Your task to perform on an android device: View the shopping cart on target. Add "apple airpods" to the cart on target Image 0: 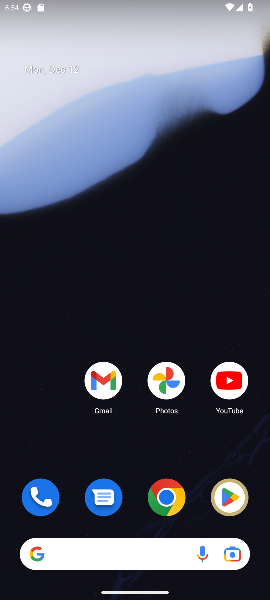
Step 0: press home button
Your task to perform on an android device: View the shopping cart on target. Add "apple airpods" to the cart on target Image 1: 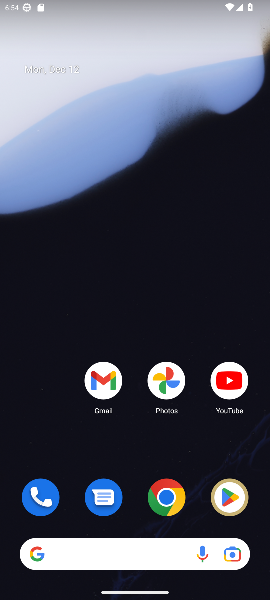
Step 1: drag from (69, 438) to (40, 83)
Your task to perform on an android device: View the shopping cart on target. Add "apple airpods" to the cart on target Image 2: 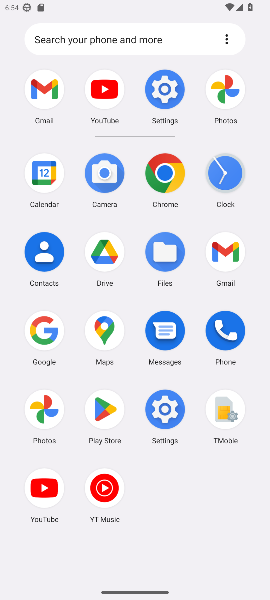
Step 2: click (49, 332)
Your task to perform on an android device: View the shopping cart on target. Add "apple airpods" to the cart on target Image 3: 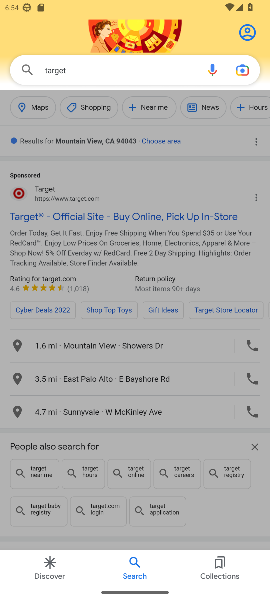
Step 3: click (121, 66)
Your task to perform on an android device: View the shopping cart on target. Add "apple airpods" to the cart on target Image 4: 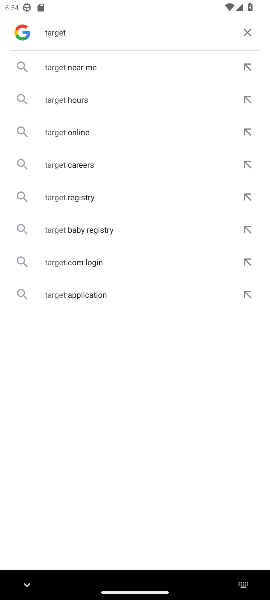
Step 4: click (240, 26)
Your task to perform on an android device: View the shopping cart on target. Add "apple airpods" to the cart on target Image 5: 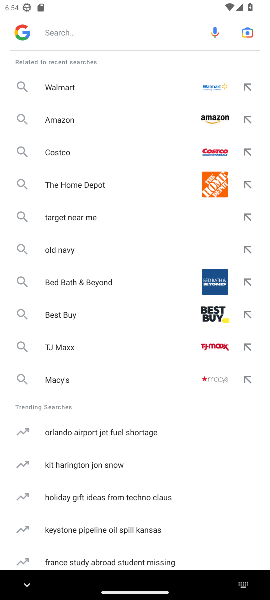
Step 5: type "target"
Your task to perform on an android device: View the shopping cart on target. Add "apple airpods" to the cart on target Image 6: 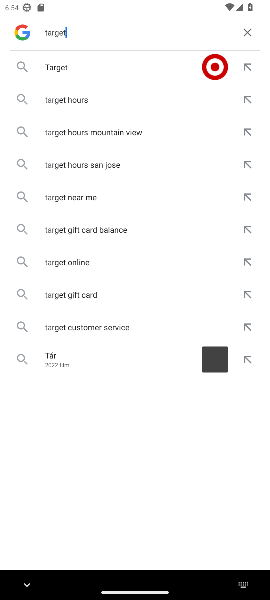
Step 6: press enter
Your task to perform on an android device: View the shopping cart on target. Add "apple airpods" to the cart on target Image 7: 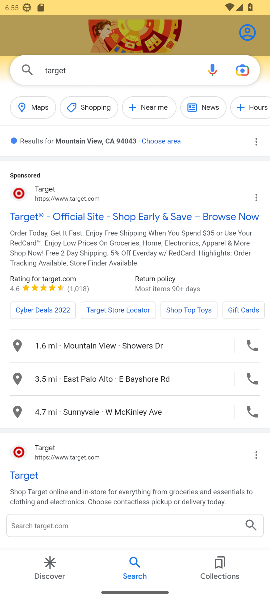
Step 7: click (81, 213)
Your task to perform on an android device: View the shopping cart on target. Add "apple airpods" to the cart on target Image 8: 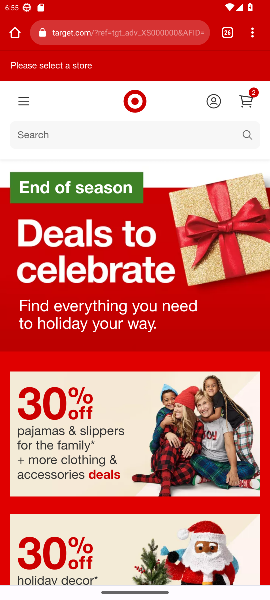
Step 8: click (244, 90)
Your task to perform on an android device: View the shopping cart on target. Add "apple airpods" to the cart on target Image 9: 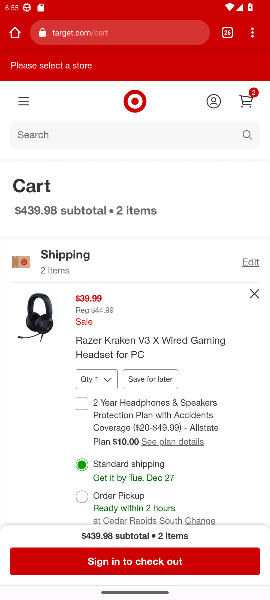
Step 9: drag from (137, 479) to (125, 259)
Your task to perform on an android device: View the shopping cart on target. Add "apple airpods" to the cart on target Image 10: 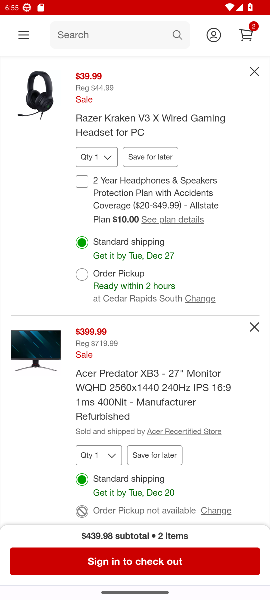
Step 10: click (254, 69)
Your task to perform on an android device: View the shopping cart on target. Add "apple airpods" to the cart on target Image 11: 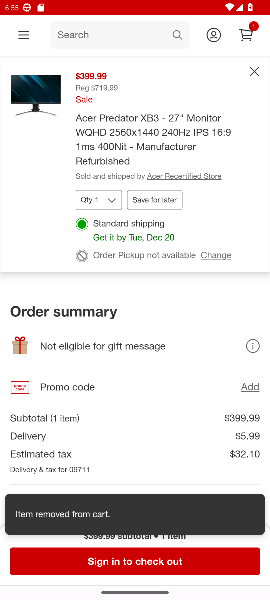
Step 11: click (254, 70)
Your task to perform on an android device: View the shopping cart on target. Add "apple airpods" to the cart on target Image 12: 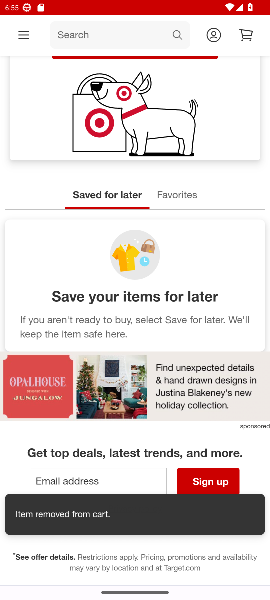
Step 12: click (176, 32)
Your task to perform on an android device: View the shopping cart on target. Add "apple airpods" to the cart on target Image 13: 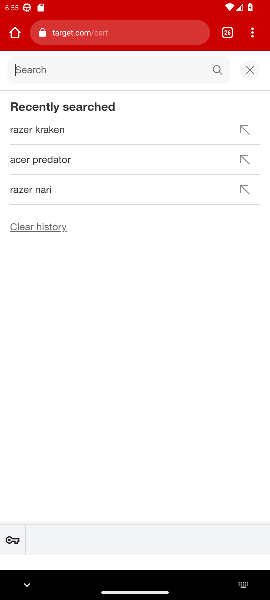
Step 13: type "apple airpods"
Your task to perform on an android device: View the shopping cart on target. Add "apple airpods" to the cart on target Image 14: 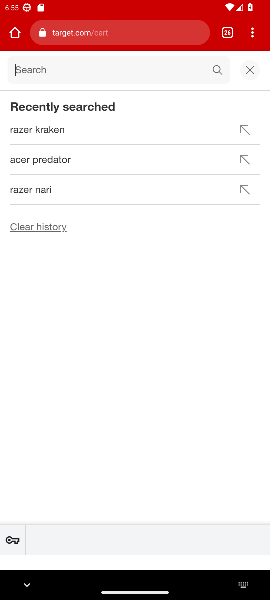
Step 14: press enter
Your task to perform on an android device: View the shopping cart on target. Add "apple airpods" to the cart on target Image 15: 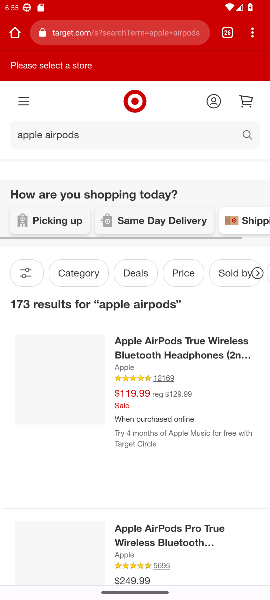
Step 15: click (157, 345)
Your task to perform on an android device: View the shopping cart on target. Add "apple airpods" to the cart on target Image 16: 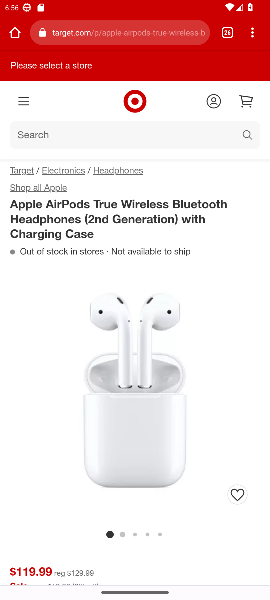
Step 16: drag from (160, 458) to (153, 166)
Your task to perform on an android device: View the shopping cart on target. Add "apple airpods" to the cart on target Image 17: 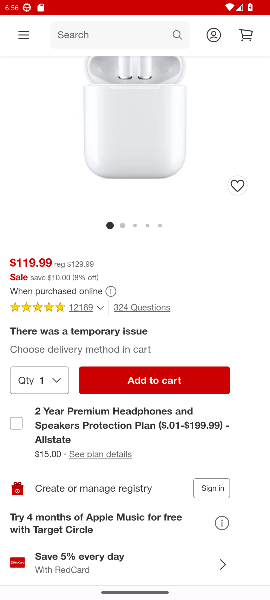
Step 17: click (139, 380)
Your task to perform on an android device: View the shopping cart on target. Add "apple airpods" to the cart on target Image 18: 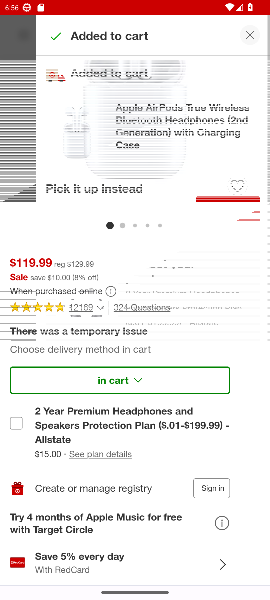
Step 18: task complete